Your task to perform on an android device: Open the phone app and click the voicemail tab. Image 0: 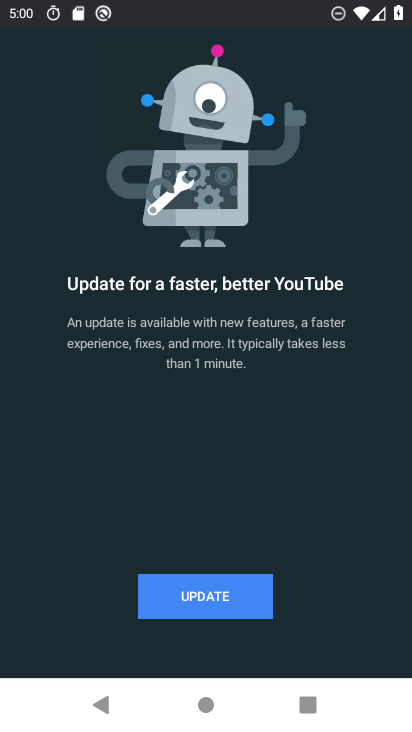
Step 0: press home button
Your task to perform on an android device: Open the phone app and click the voicemail tab. Image 1: 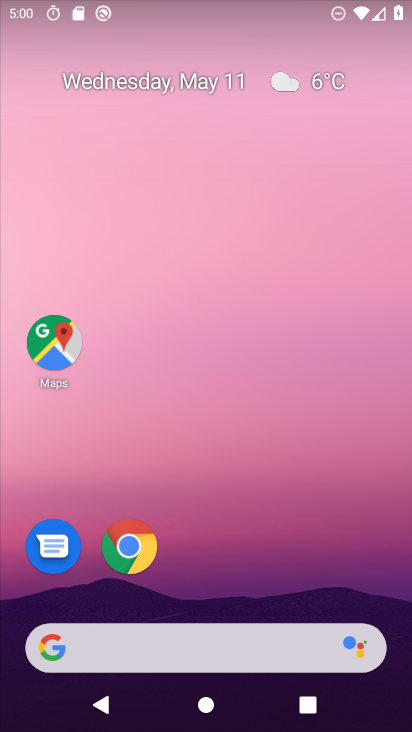
Step 1: drag from (155, 610) to (152, 356)
Your task to perform on an android device: Open the phone app and click the voicemail tab. Image 2: 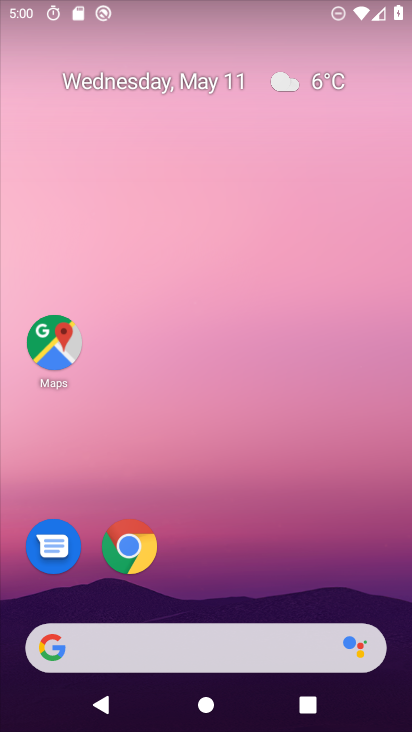
Step 2: drag from (186, 602) to (152, 201)
Your task to perform on an android device: Open the phone app and click the voicemail tab. Image 3: 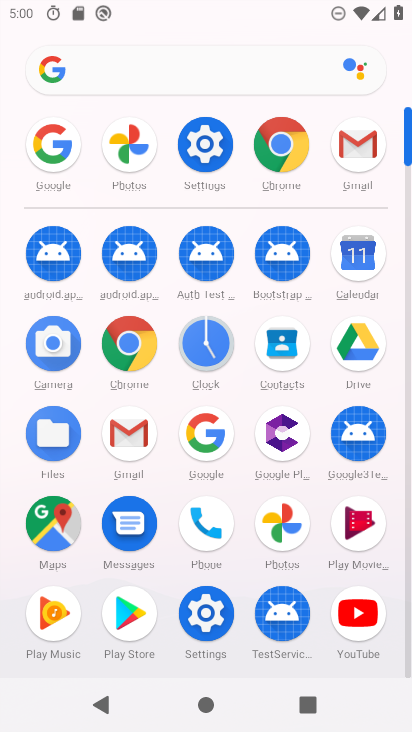
Step 3: click (189, 532)
Your task to perform on an android device: Open the phone app and click the voicemail tab. Image 4: 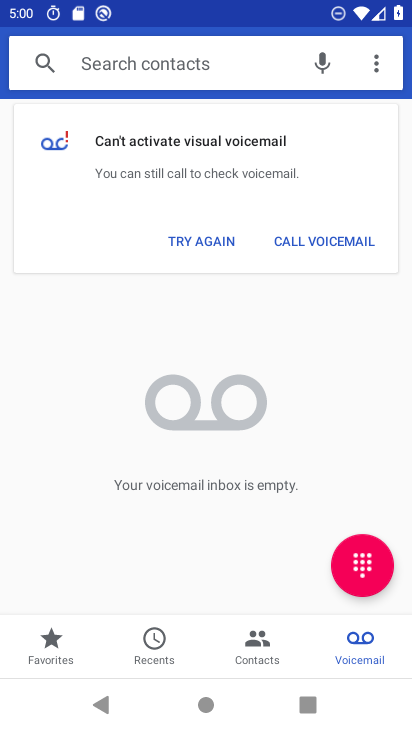
Step 4: click (372, 652)
Your task to perform on an android device: Open the phone app and click the voicemail tab. Image 5: 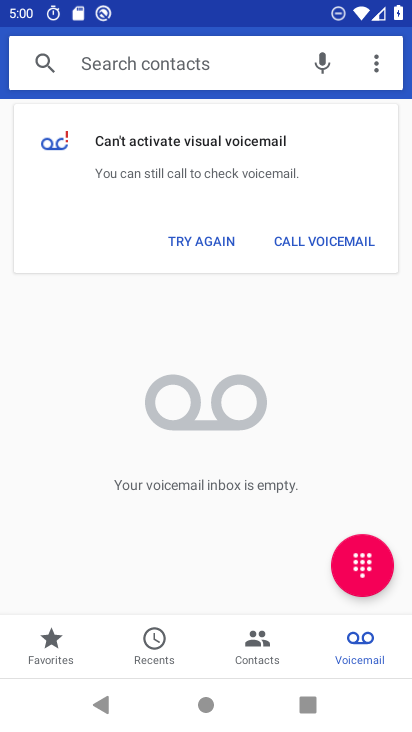
Step 5: task complete